Your task to perform on an android device: Open Yahoo.com Image 0: 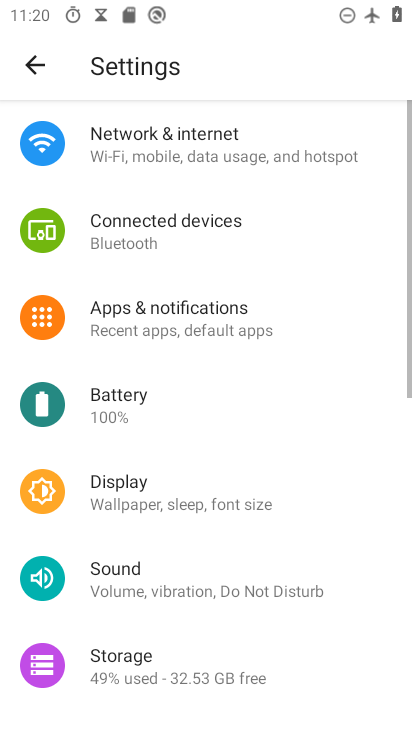
Step 0: press home button
Your task to perform on an android device: Open Yahoo.com Image 1: 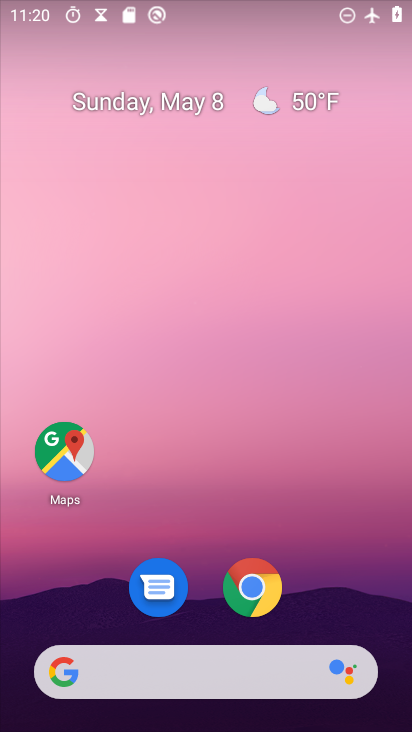
Step 1: click (251, 592)
Your task to perform on an android device: Open Yahoo.com Image 2: 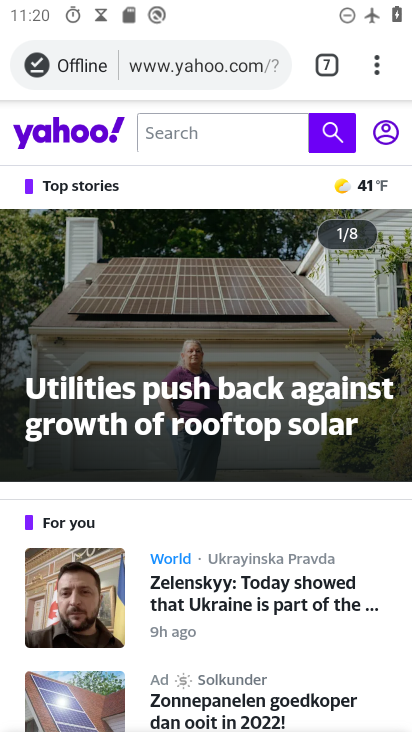
Step 2: task complete